Your task to perform on an android device: Find coffee shops on Maps Image 0: 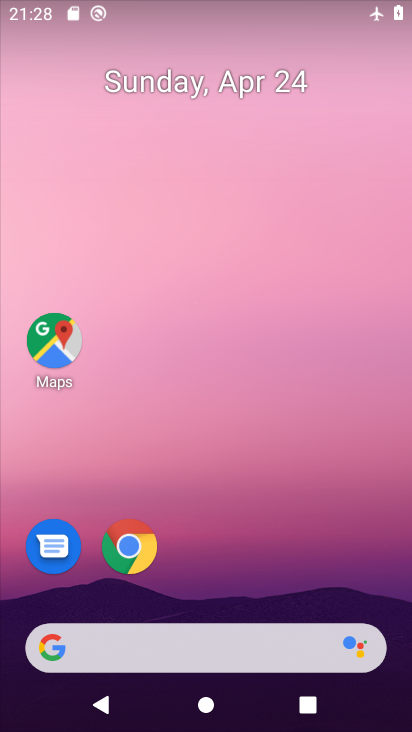
Step 0: drag from (268, 535) to (253, 140)
Your task to perform on an android device: Find coffee shops on Maps Image 1: 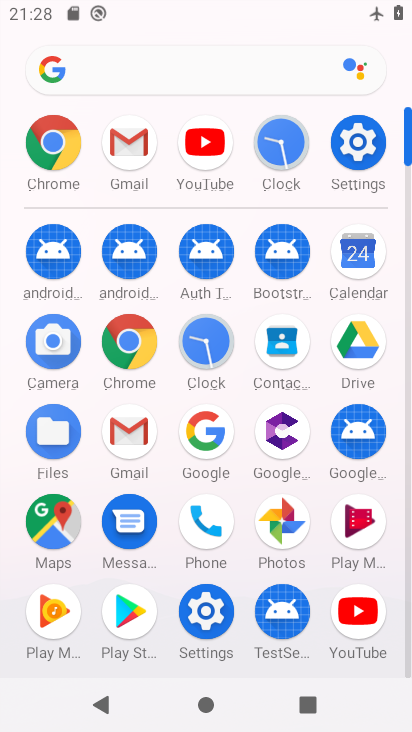
Step 1: click (52, 512)
Your task to perform on an android device: Find coffee shops on Maps Image 2: 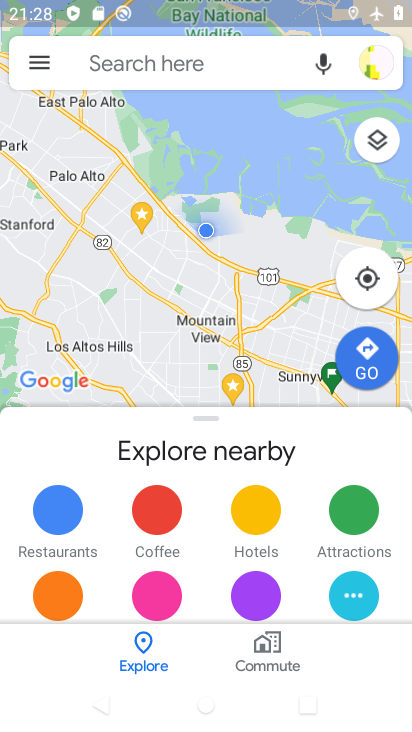
Step 2: click (198, 60)
Your task to perform on an android device: Find coffee shops on Maps Image 3: 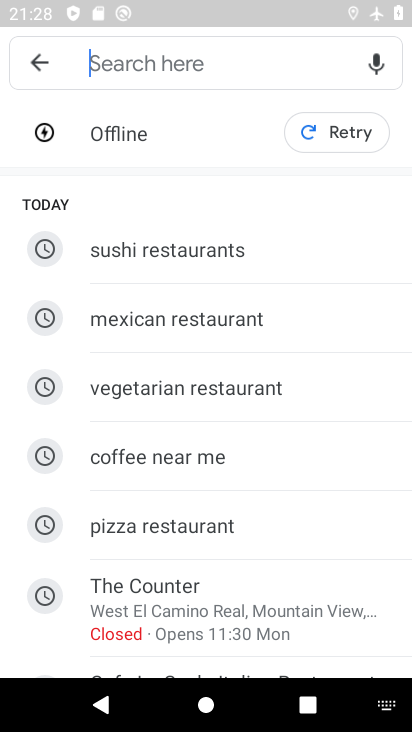
Step 3: type " coffee shops "
Your task to perform on an android device: Find coffee shops on Maps Image 4: 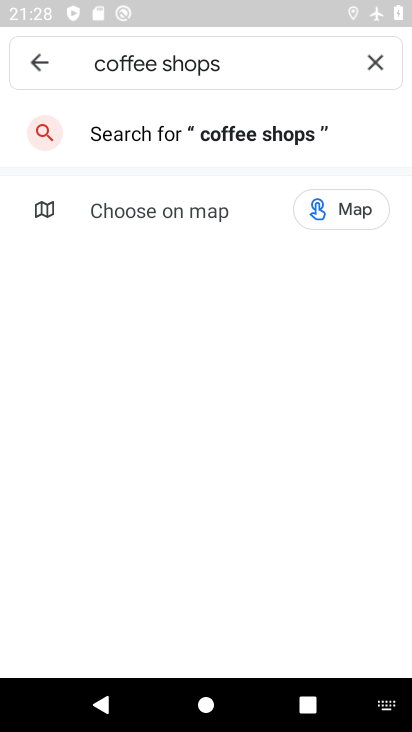
Step 4: click (223, 123)
Your task to perform on an android device: Find coffee shops on Maps Image 5: 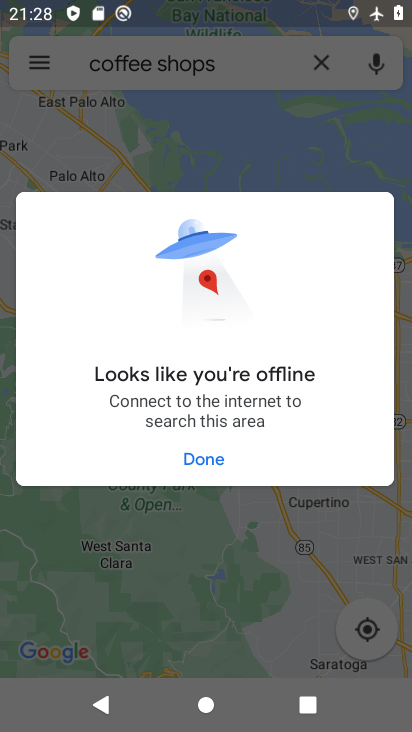
Step 5: task complete